Your task to perform on an android device: set the stopwatch Image 0: 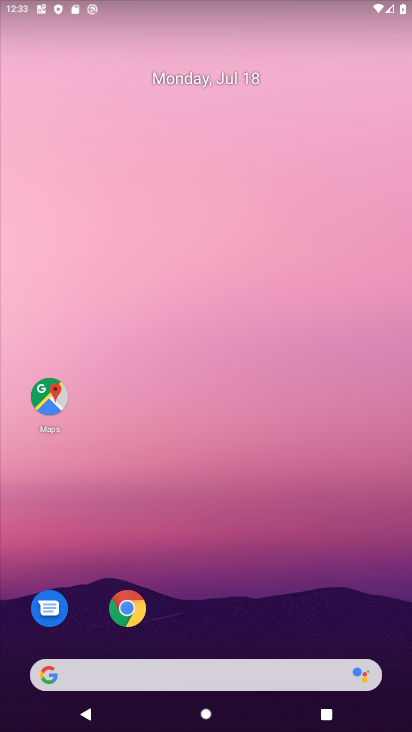
Step 0: drag from (312, 630) to (270, 116)
Your task to perform on an android device: set the stopwatch Image 1: 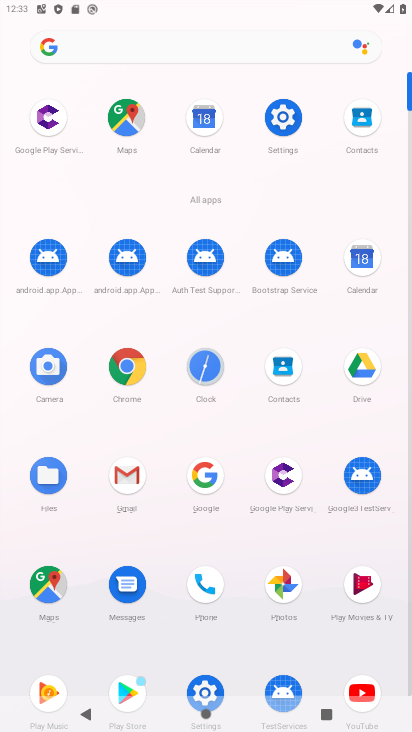
Step 1: click (211, 373)
Your task to perform on an android device: set the stopwatch Image 2: 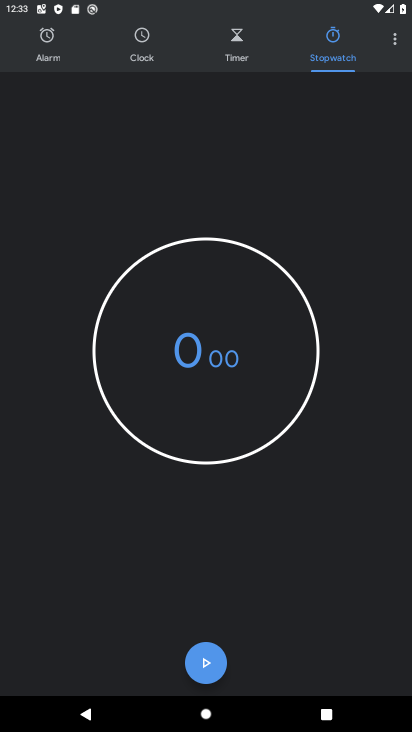
Step 2: click (212, 669)
Your task to perform on an android device: set the stopwatch Image 3: 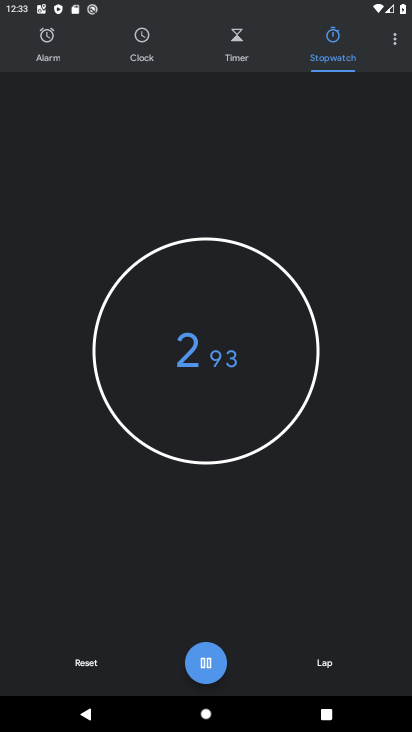
Step 3: task complete